Your task to perform on an android device: Go to Maps Image 0: 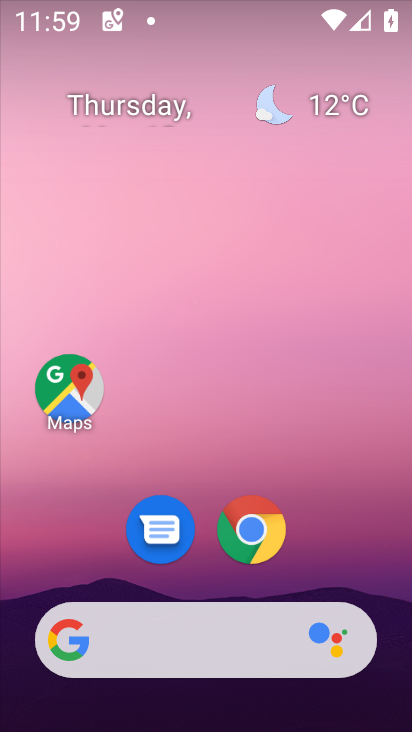
Step 0: drag from (341, 579) to (319, 191)
Your task to perform on an android device: Go to Maps Image 1: 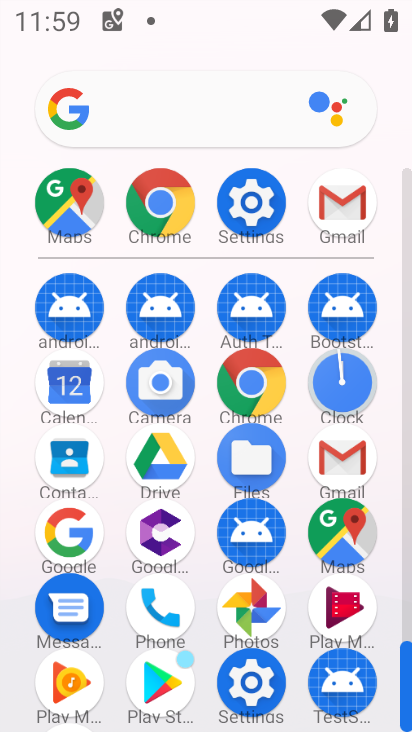
Step 1: click (357, 523)
Your task to perform on an android device: Go to Maps Image 2: 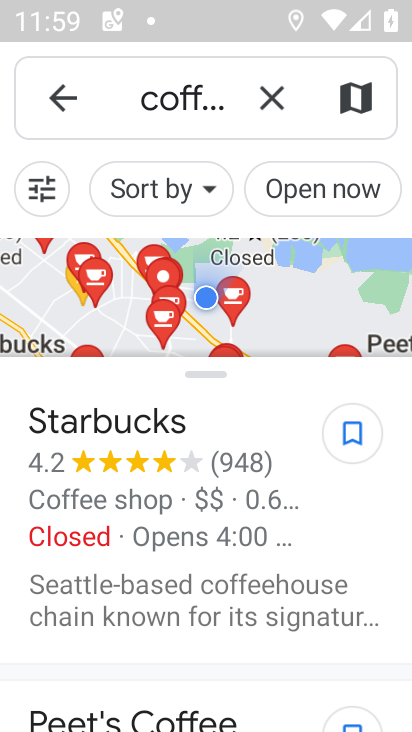
Step 2: click (264, 96)
Your task to perform on an android device: Go to Maps Image 3: 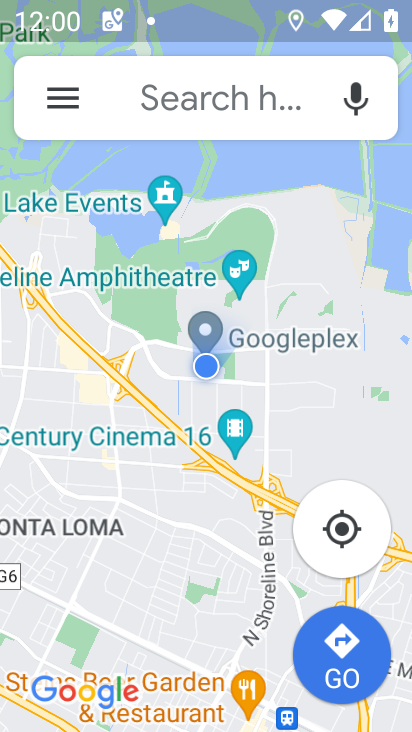
Step 3: task complete